Your task to perform on an android device: Go to calendar. Show me events next week Image 0: 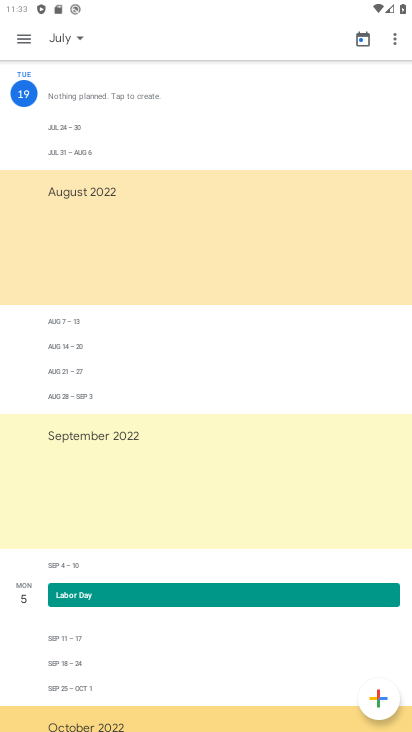
Step 0: click (22, 31)
Your task to perform on an android device: Go to calendar. Show me events next week Image 1: 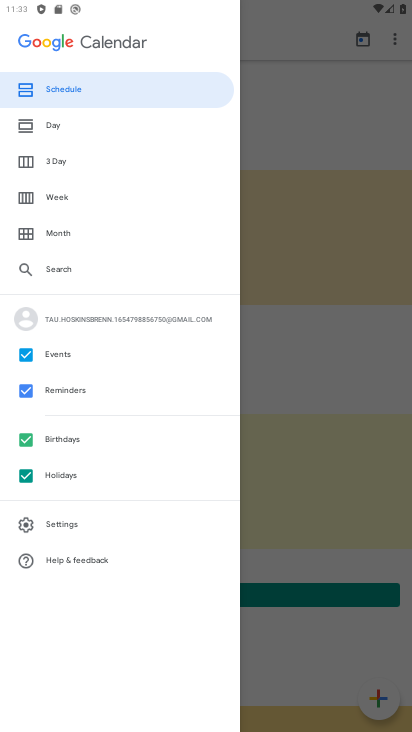
Step 1: click (69, 204)
Your task to perform on an android device: Go to calendar. Show me events next week Image 2: 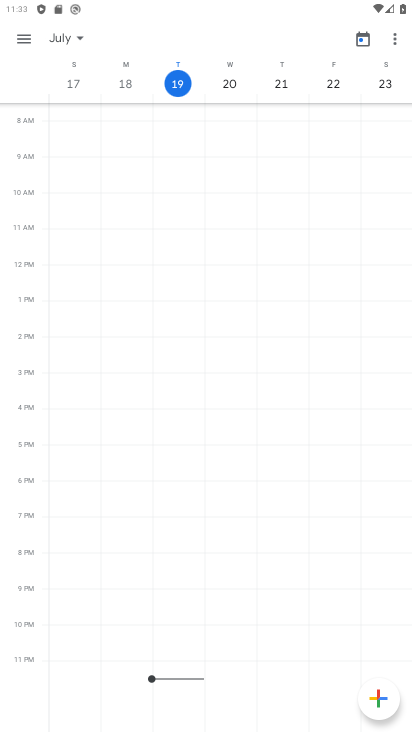
Step 2: task complete